Your task to perform on an android device: turn on airplane mode Image 0: 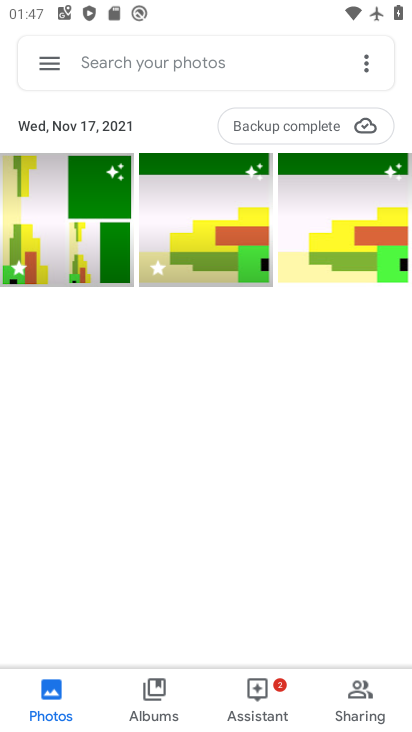
Step 0: press home button
Your task to perform on an android device: turn on airplane mode Image 1: 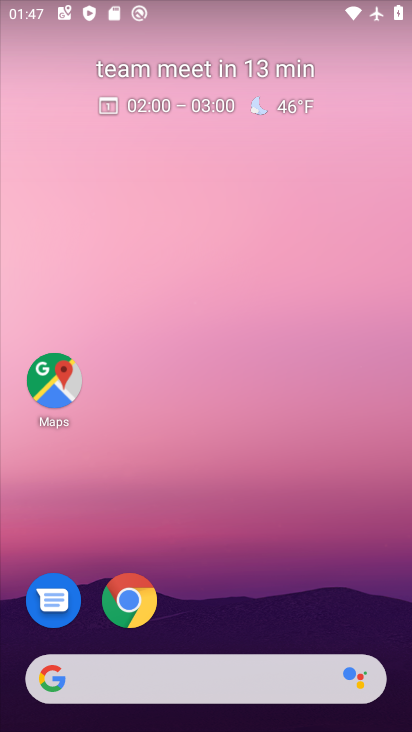
Step 1: drag from (209, 637) to (121, 1)
Your task to perform on an android device: turn on airplane mode Image 2: 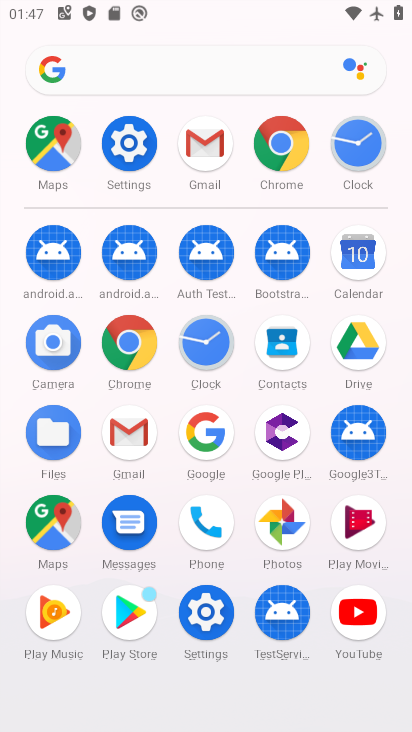
Step 2: click (133, 157)
Your task to perform on an android device: turn on airplane mode Image 3: 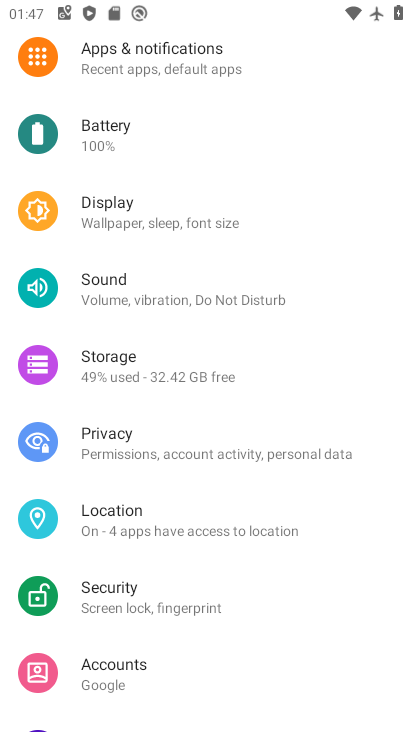
Step 3: drag from (133, 157) to (95, 654)
Your task to perform on an android device: turn on airplane mode Image 4: 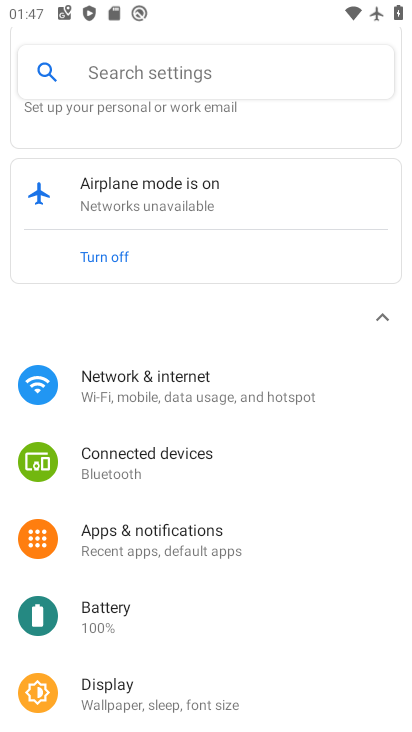
Step 4: click (159, 383)
Your task to perform on an android device: turn on airplane mode Image 5: 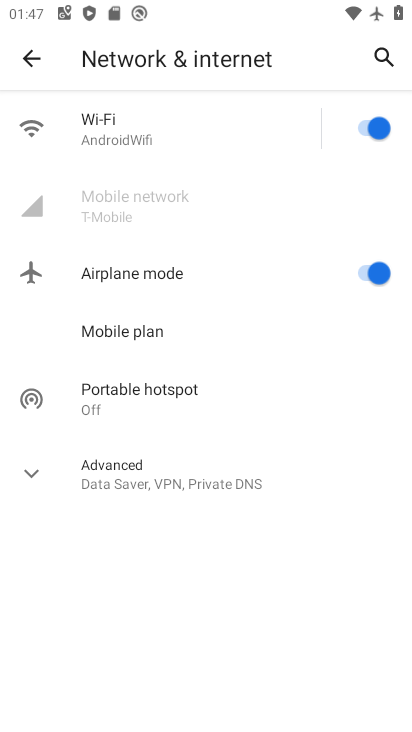
Step 5: task complete